Your task to perform on an android device: Clear the cart on bestbuy. Add corsair k70 to the cart on bestbuy, then select checkout. Image 0: 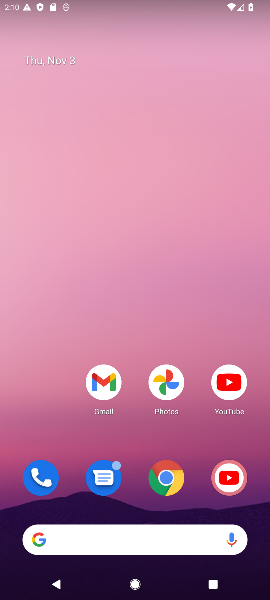
Step 0: click (165, 479)
Your task to perform on an android device: Clear the cart on bestbuy. Add corsair k70 to the cart on bestbuy, then select checkout. Image 1: 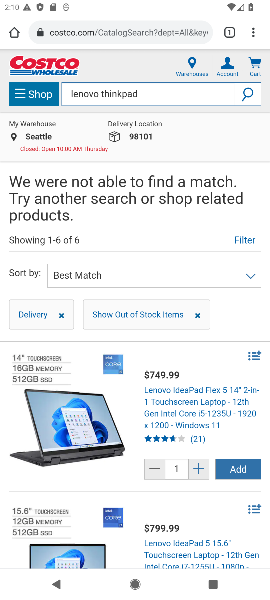
Step 1: click (103, 29)
Your task to perform on an android device: Clear the cart on bestbuy. Add corsair k70 to the cart on bestbuy, then select checkout. Image 2: 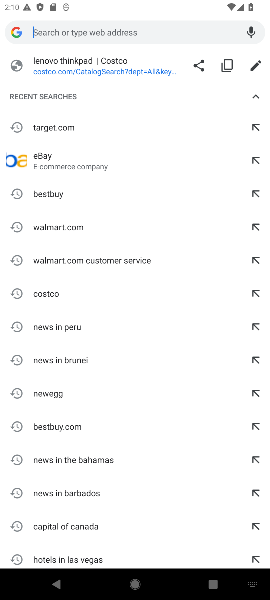
Step 2: type "bestbuy.com"
Your task to perform on an android device: Clear the cart on bestbuy. Add corsair k70 to the cart on bestbuy, then select checkout. Image 3: 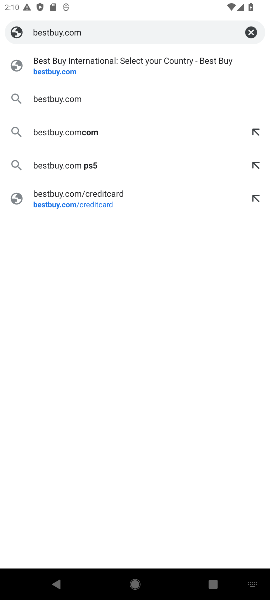
Step 3: click (69, 74)
Your task to perform on an android device: Clear the cart on bestbuy. Add corsair k70 to the cart on bestbuy, then select checkout. Image 4: 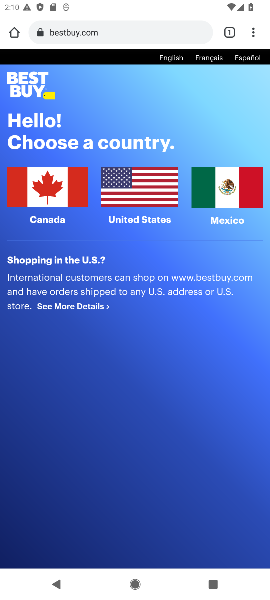
Step 4: click (147, 197)
Your task to perform on an android device: Clear the cart on bestbuy. Add corsair k70 to the cart on bestbuy, then select checkout. Image 5: 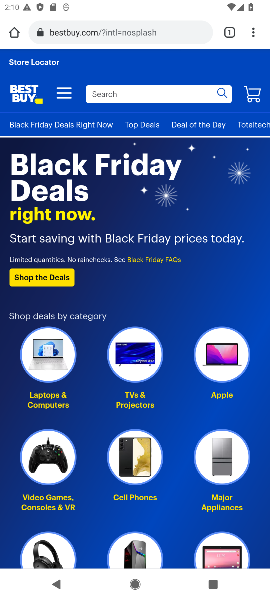
Step 5: click (256, 92)
Your task to perform on an android device: Clear the cart on bestbuy. Add corsair k70 to the cart on bestbuy, then select checkout. Image 6: 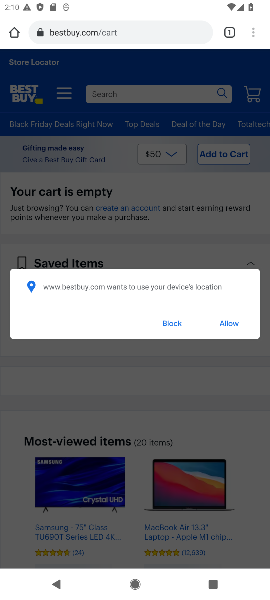
Step 6: click (171, 321)
Your task to perform on an android device: Clear the cart on bestbuy. Add corsair k70 to the cart on bestbuy, then select checkout. Image 7: 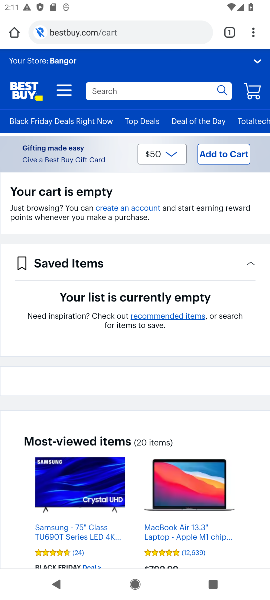
Step 7: click (134, 97)
Your task to perform on an android device: Clear the cart on bestbuy. Add corsair k70 to the cart on bestbuy, then select checkout. Image 8: 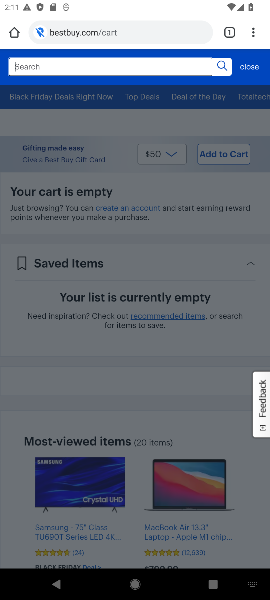
Step 8: type "corsair k70"
Your task to perform on an android device: Clear the cart on bestbuy. Add corsair k70 to the cart on bestbuy, then select checkout. Image 9: 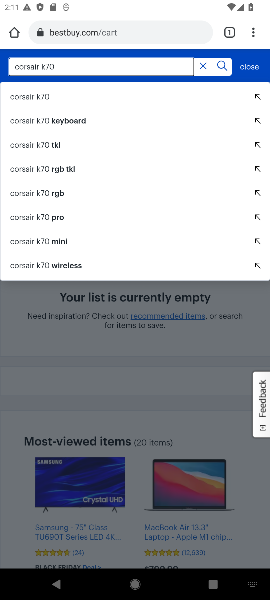
Step 9: click (19, 98)
Your task to perform on an android device: Clear the cart on bestbuy. Add corsair k70 to the cart on bestbuy, then select checkout. Image 10: 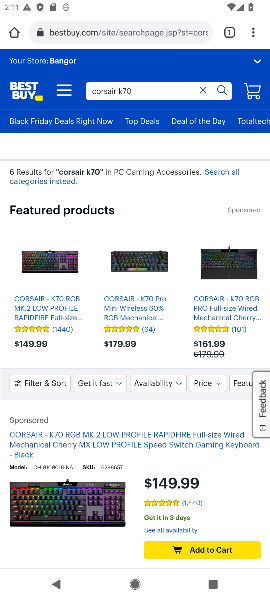
Step 10: drag from (147, 352) to (142, 180)
Your task to perform on an android device: Clear the cart on bestbuy. Add corsair k70 to the cart on bestbuy, then select checkout. Image 11: 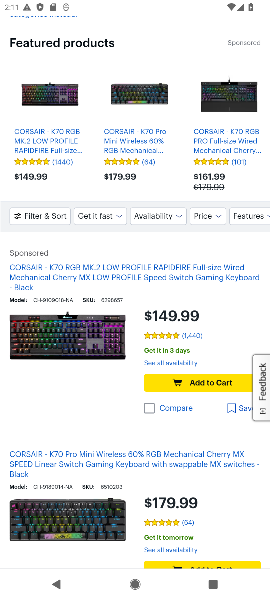
Step 11: click (161, 343)
Your task to perform on an android device: Clear the cart on bestbuy. Add corsair k70 to the cart on bestbuy, then select checkout. Image 12: 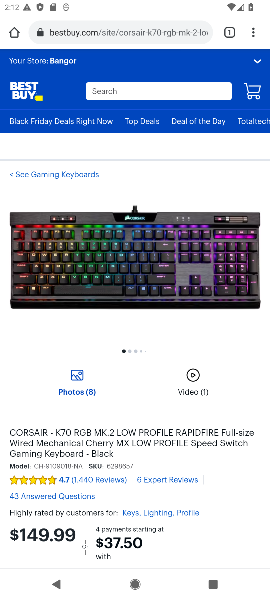
Step 12: drag from (148, 442) to (131, 214)
Your task to perform on an android device: Clear the cart on bestbuy. Add corsair k70 to the cart on bestbuy, then select checkout. Image 13: 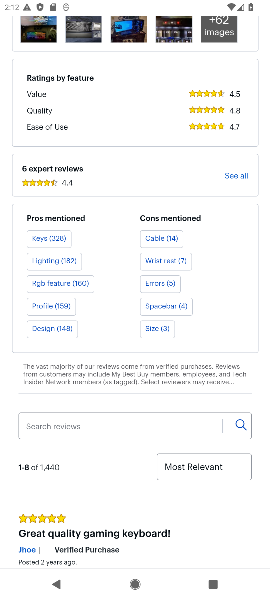
Step 13: drag from (122, 489) to (130, 328)
Your task to perform on an android device: Clear the cart on bestbuy. Add corsair k70 to the cart on bestbuy, then select checkout. Image 14: 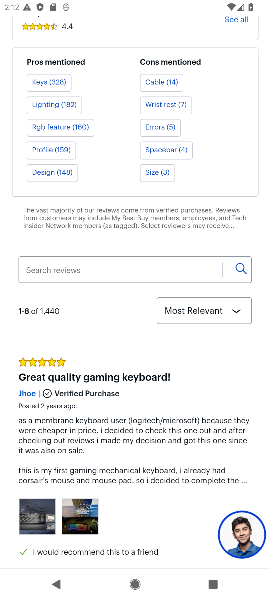
Step 14: drag from (130, 328) to (125, 503)
Your task to perform on an android device: Clear the cart on bestbuy. Add corsair k70 to the cart on bestbuy, then select checkout. Image 15: 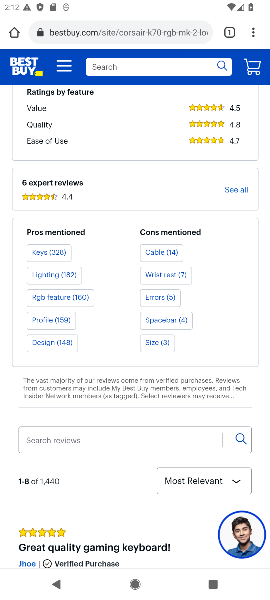
Step 15: drag from (123, 267) to (122, 459)
Your task to perform on an android device: Clear the cart on bestbuy. Add corsair k70 to the cart on bestbuy, then select checkout. Image 16: 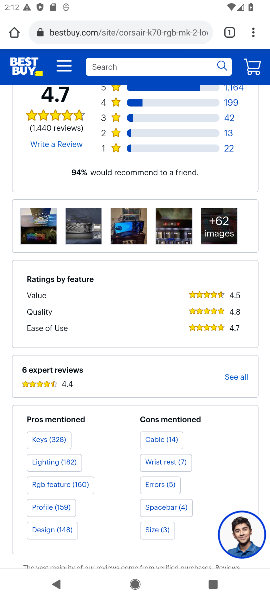
Step 16: drag from (116, 324) to (112, 540)
Your task to perform on an android device: Clear the cart on bestbuy. Add corsair k70 to the cart on bestbuy, then select checkout. Image 17: 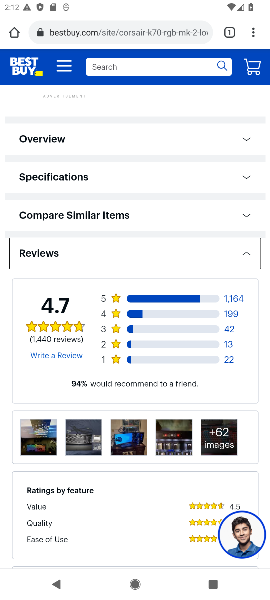
Step 17: drag from (133, 237) to (127, 494)
Your task to perform on an android device: Clear the cart on bestbuy. Add corsair k70 to the cart on bestbuy, then select checkout. Image 18: 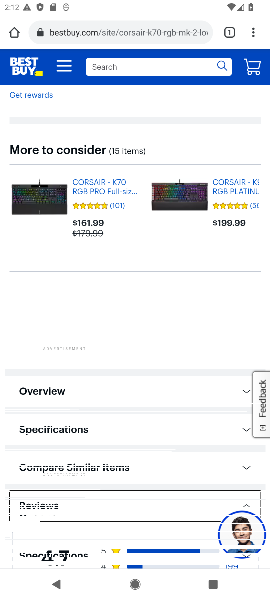
Step 18: drag from (137, 203) to (122, 447)
Your task to perform on an android device: Clear the cart on bestbuy. Add corsair k70 to the cart on bestbuy, then select checkout. Image 19: 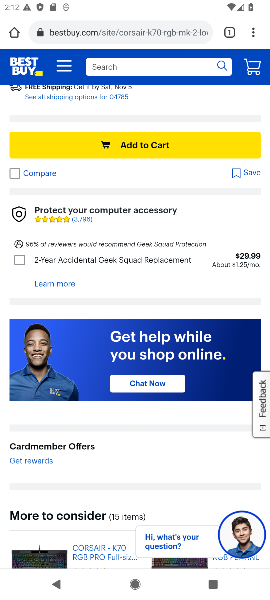
Step 19: drag from (132, 192) to (136, 428)
Your task to perform on an android device: Clear the cart on bestbuy. Add corsair k70 to the cart on bestbuy, then select checkout. Image 20: 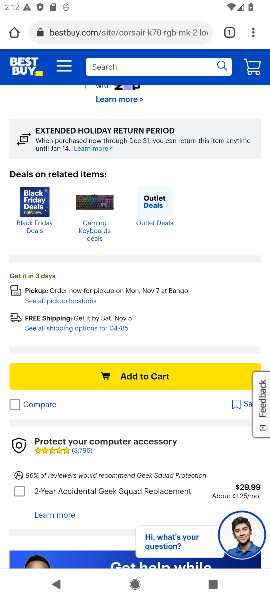
Step 20: click (128, 378)
Your task to perform on an android device: Clear the cart on bestbuy. Add corsair k70 to the cart on bestbuy, then select checkout. Image 21: 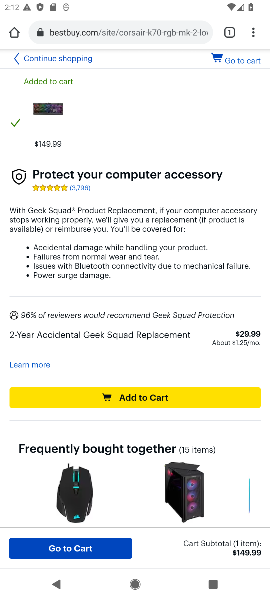
Step 21: click (230, 64)
Your task to perform on an android device: Clear the cart on bestbuy. Add corsair k70 to the cart on bestbuy, then select checkout. Image 22: 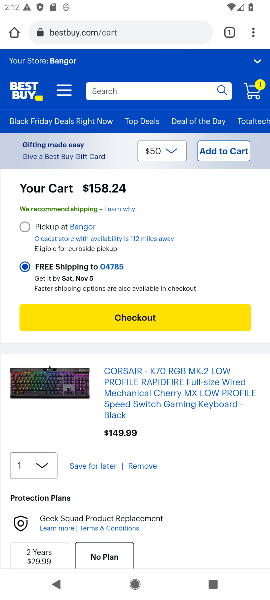
Step 22: click (139, 314)
Your task to perform on an android device: Clear the cart on bestbuy. Add corsair k70 to the cart on bestbuy, then select checkout. Image 23: 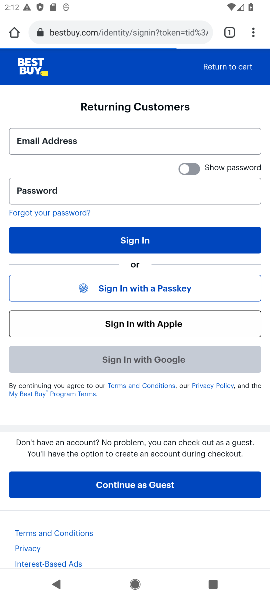
Step 23: task complete